Your task to perform on an android device: Show me popular videos on Youtube Image 0: 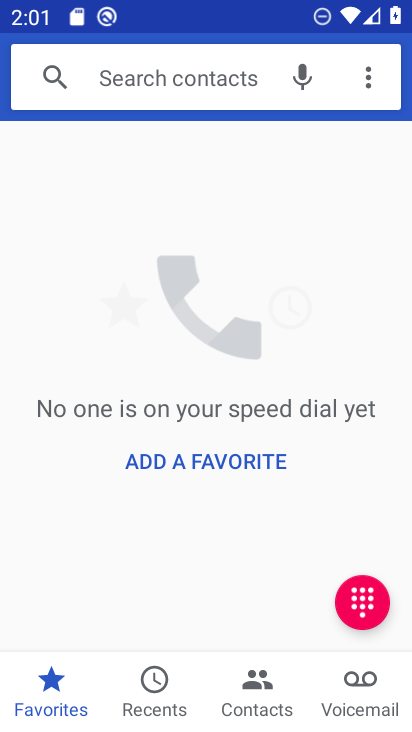
Step 0: press home button
Your task to perform on an android device: Show me popular videos on Youtube Image 1: 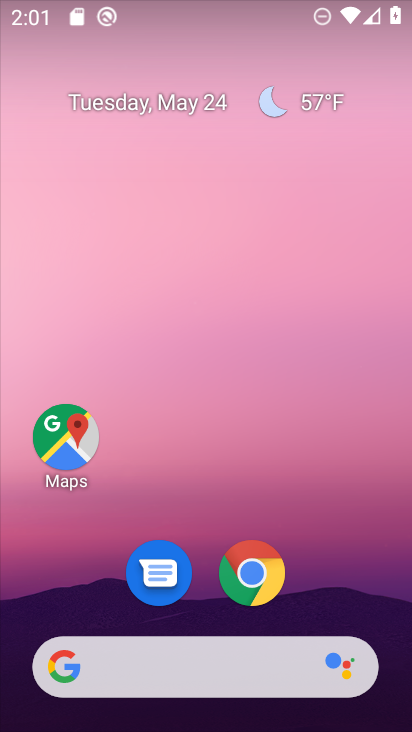
Step 1: drag from (362, 562) to (333, 160)
Your task to perform on an android device: Show me popular videos on Youtube Image 2: 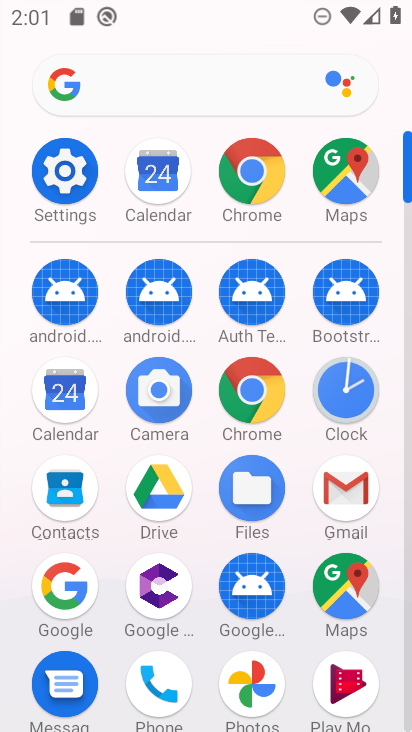
Step 2: drag from (278, 568) to (286, 242)
Your task to perform on an android device: Show me popular videos on Youtube Image 3: 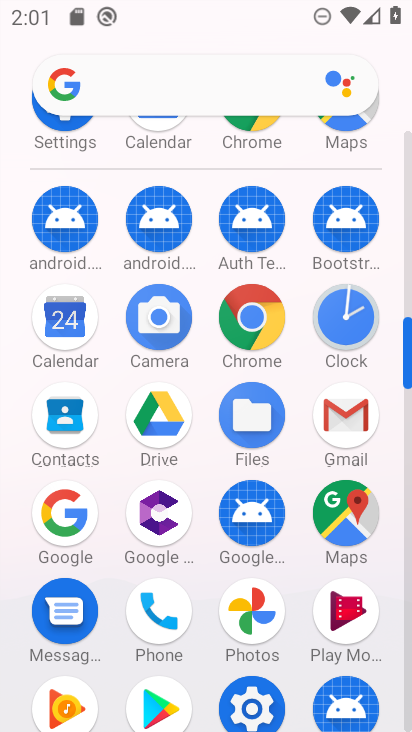
Step 3: drag from (213, 687) to (223, 247)
Your task to perform on an android device: Show me popular videos on Youtube Image 4: 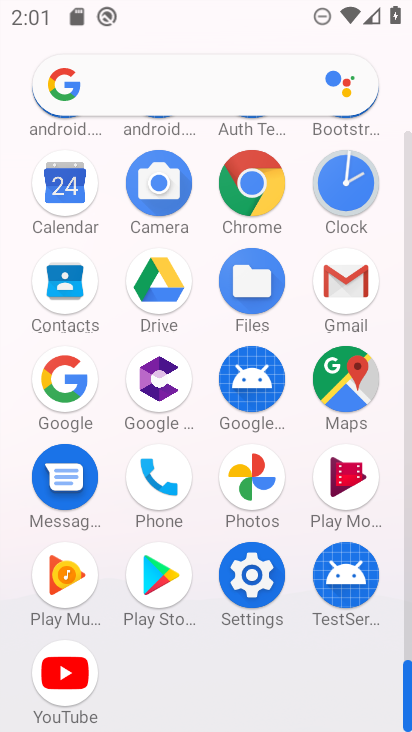
Step 4: click (58, 654)
Your task to perform on an android device: Show me popular videos on Youtube Image 5: 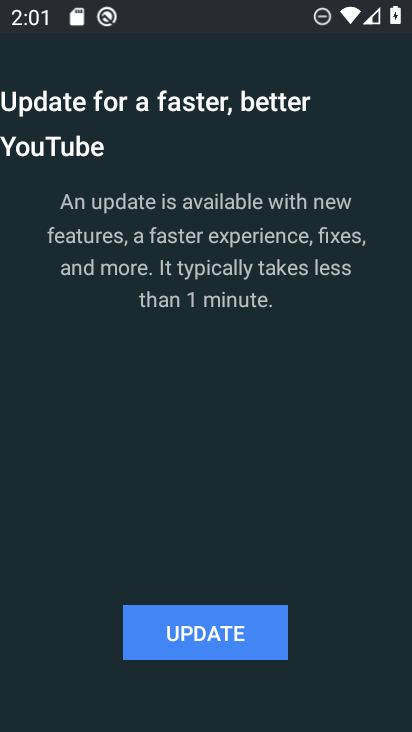
Step 5: click (184, 632)
Your task to perform on an android device: Show me popular videos on Youtube Image 6: 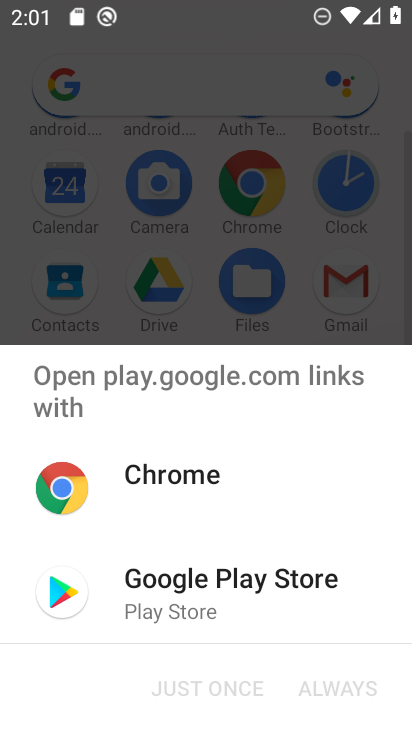
Step 6: click (190, 609)
Your task to perform on an android device: Show me popular videos on Youtube Image 7: 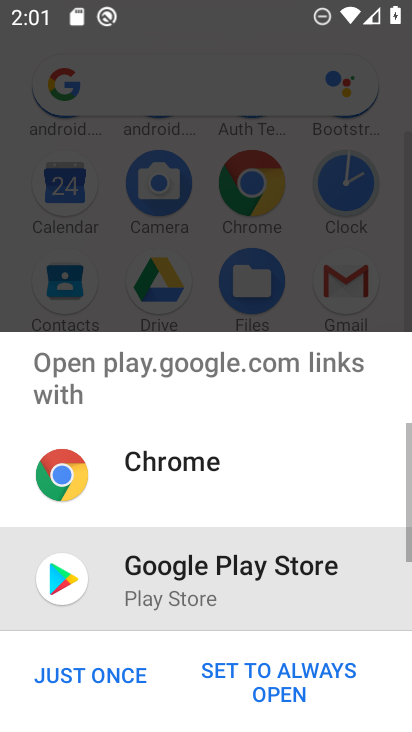
Step 7: click (90, 684)
Your task to perform on an android device: Show me popular videos on Youtube Image 8: 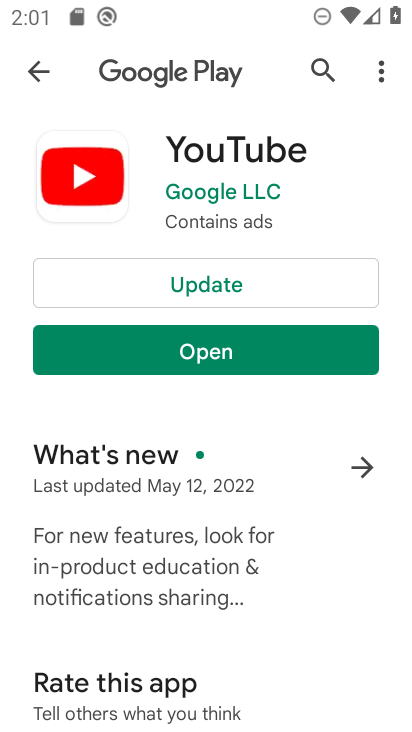
Step 8: click (239, 293)
Your task to perform on an android device: Show me popular videos on Youtube Image 9: 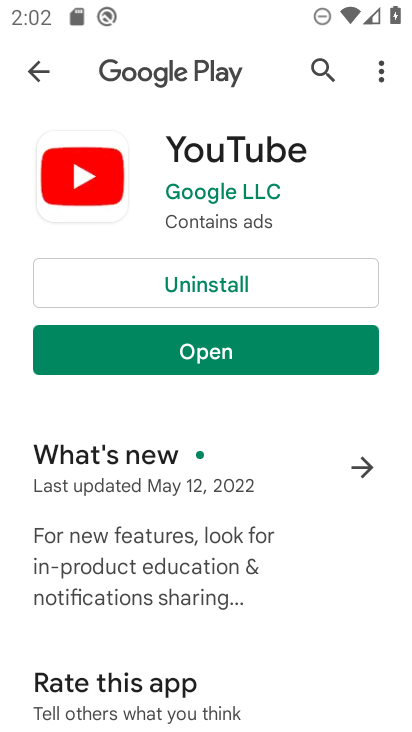
Step 9: click (224, 365)
Your task to perform on an android device: Show me popular videos on Youtube Image 10: 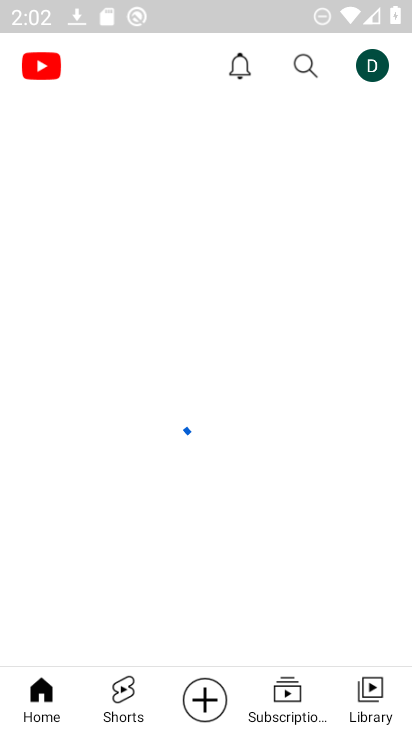
Step 10: task complete